Your task to perform on an android device: toggle notifications settings in the gmail app Image 0: 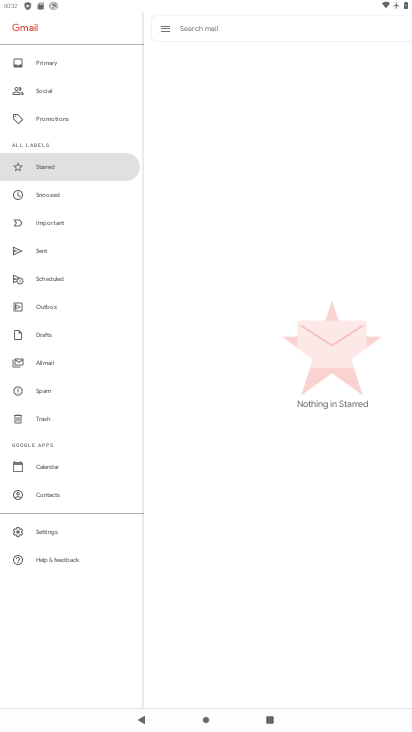
Step 0: press home button
Your task to perform on an android device: toggle notifications settings in the gmail app Image 1: 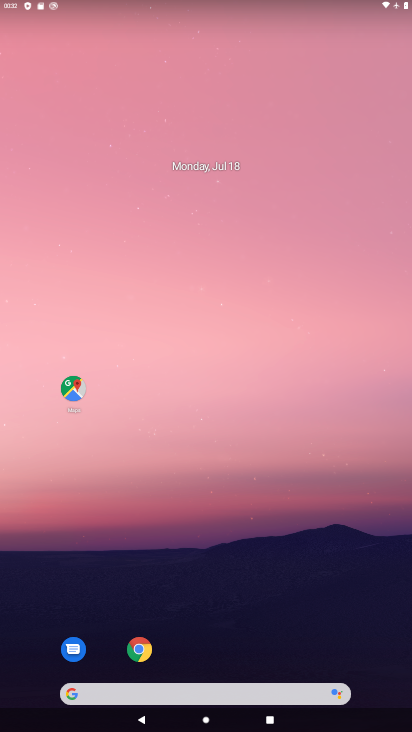
Step 1: drag from (180, 567) to (239, 39)
Your task to perform on an android device: toggle notifications settings in the gmail app Image 2: 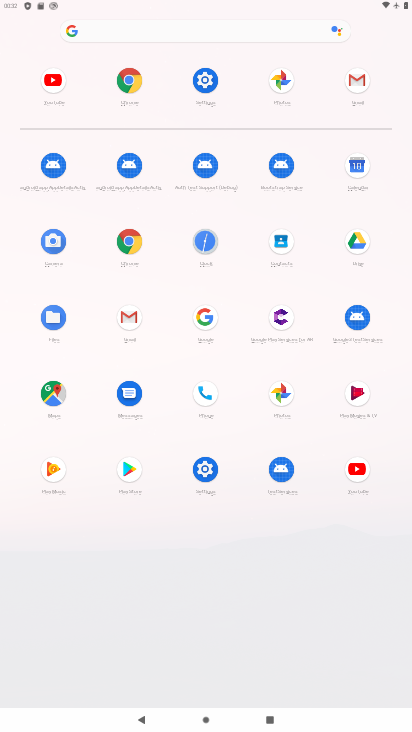
Step 2: click (350, 80)
Your task to perform on an android device: toggle notifications settings in the gmail app Image 3: 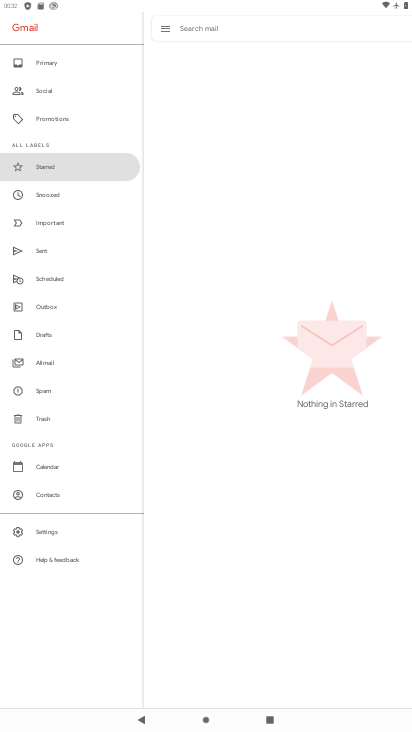
Step 3: click (42, 527)
Your task to perform on an android device: toggle notifications settings in the gmail app Image 4: 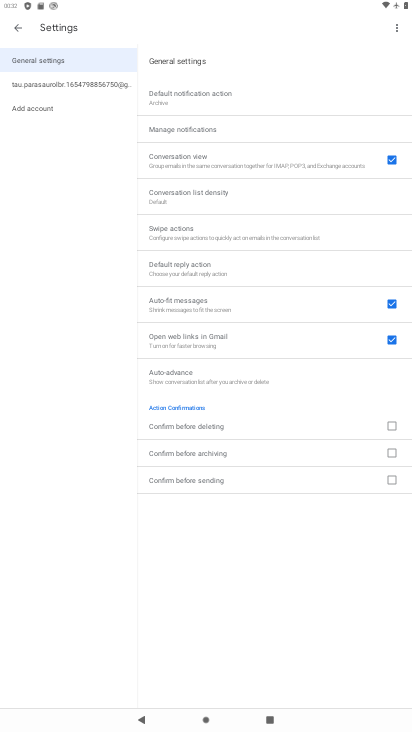
Step 4: click (57, 82)
Your task to perform on an android device: toggle notifications settings in the gmail app Image 5: 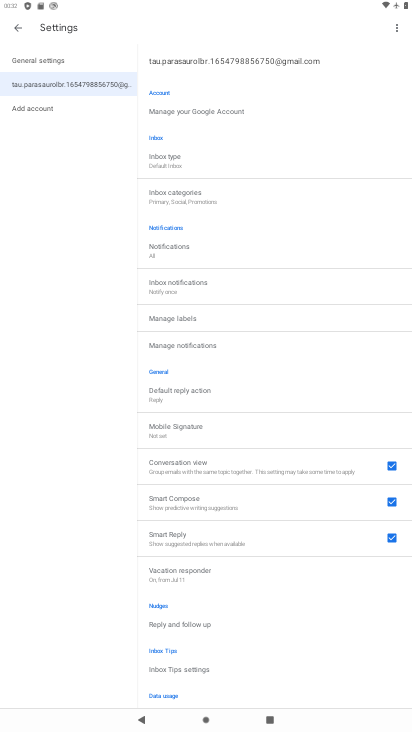
Step 5: click (195, 347)
Your task to perform on an android device: toggle notifications settings in the gmail app Image 6: 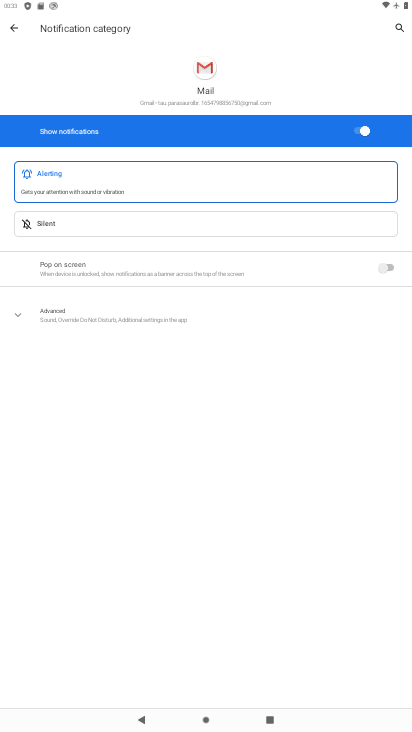
Step 6: click (357, 135)
Your task to perform on an android device: toggle notifications settings in the gmail app Image 7: 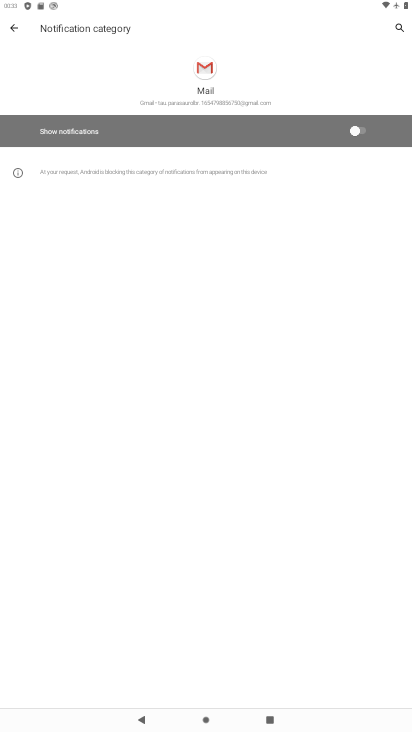
Step 7: task complete